Your task to perform on an android device: turn off translation in the chrome app Image 0: 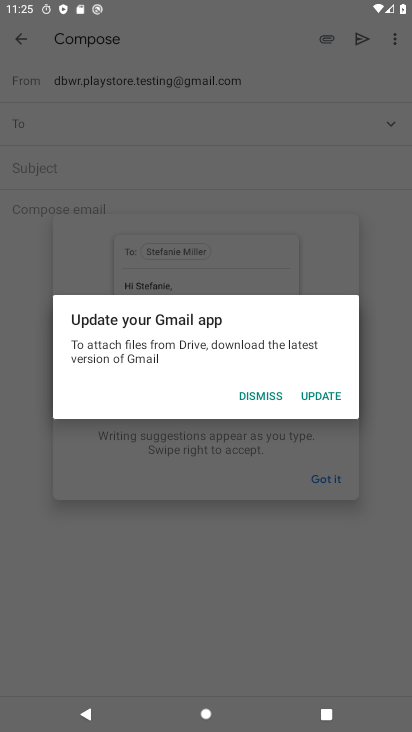
Step 0: press home button
Your task to perform on an android device: turn off translation in the chrome app Image 1: 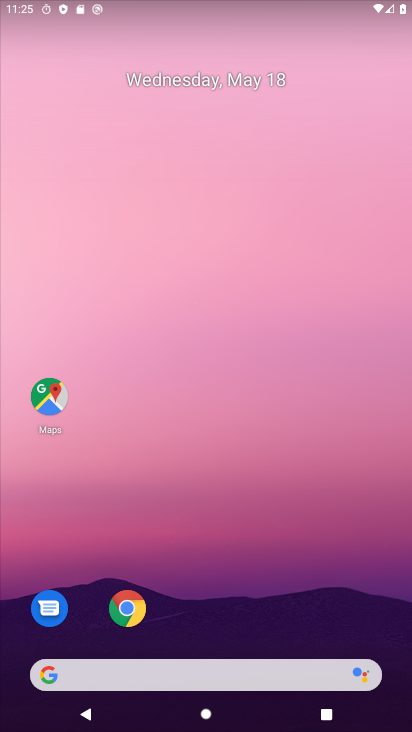
Step 1: click (136, 600)
Your task to perform on an android device: turn off translation in the chrome app Image 2: 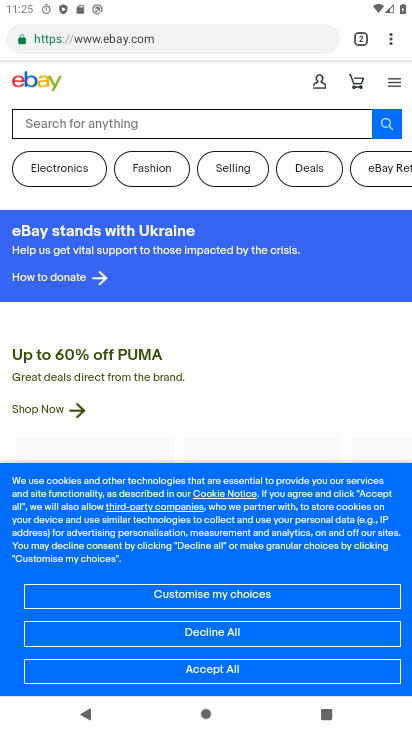
Step 2: click (395, 40)
Your task to perform on an android device: turn off translation in the chrome app Image 3: 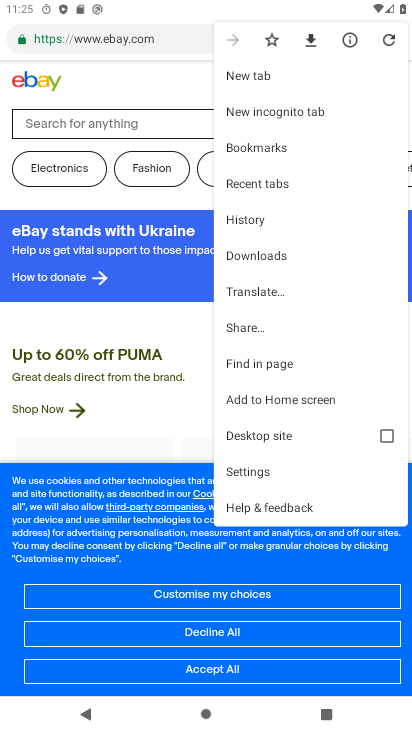
Step 3: click (283, 471)
Your task to perform on an android device: turn off translation in the chrome app Image 4: 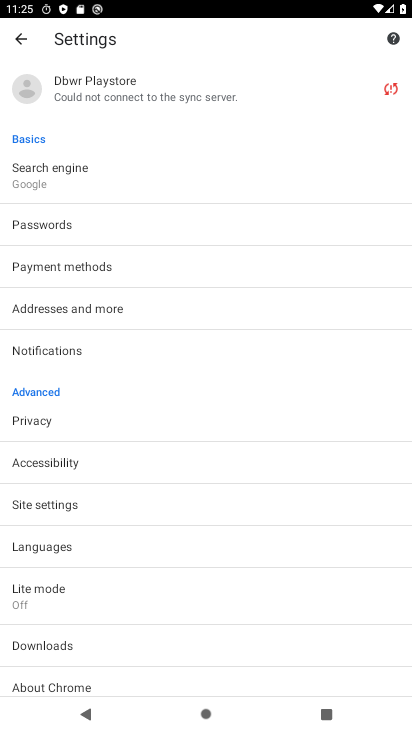
Step 4: click (242, 540)
Your task to perform on an android device: turn off translation in the chrome app Image 5: 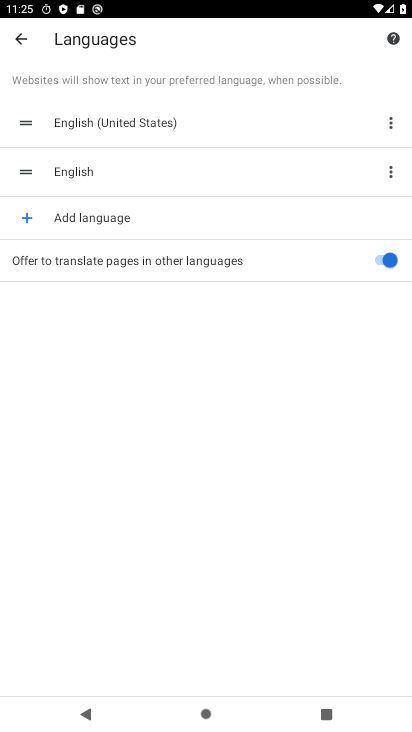
Step 5: click (383, 262)
Your task to perform on an android device: turn off translation in the chrome app Image 6: 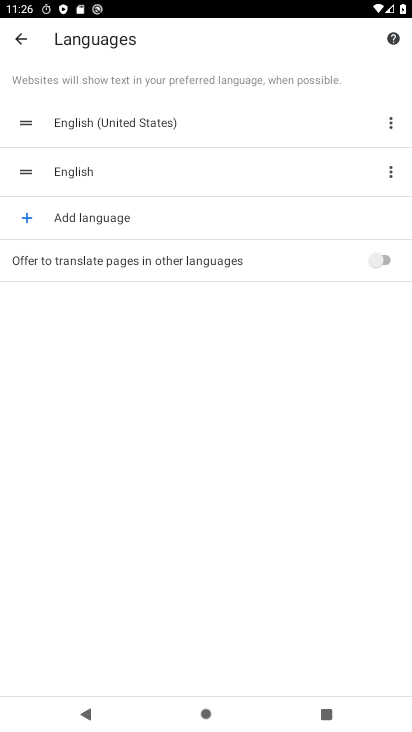
Step 6: task complete